Your task to perform on an android device: Go to privacy settings Image 0: 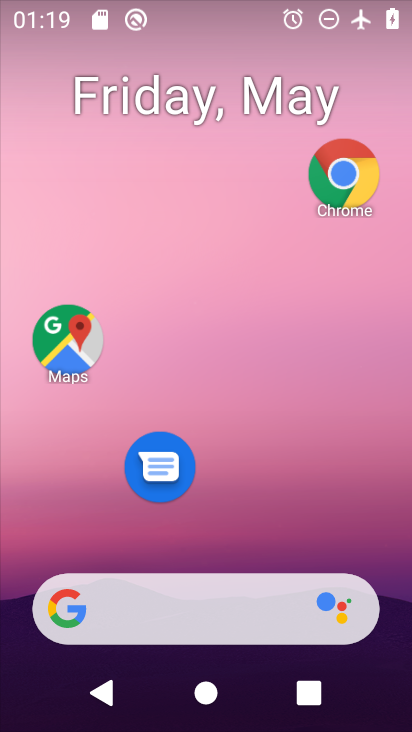
Step 0: drag from (241, 497) to (290, 198)
Your task to perform on an android device: Go to privacy settings Image 1: 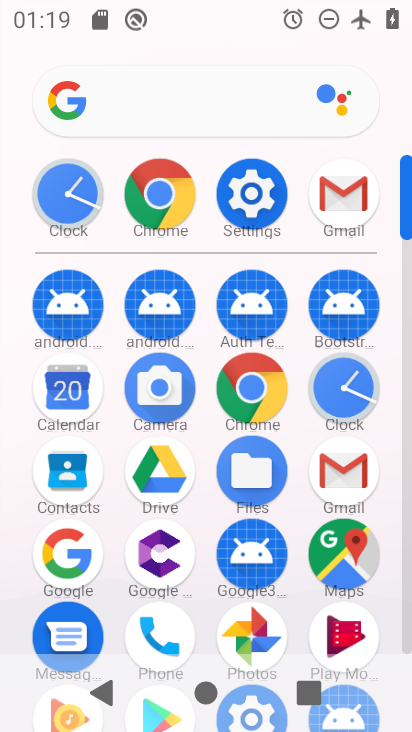
Step 1: click (254, 188)
Your task to perform on an android device: Go to privacy settings Image 2: 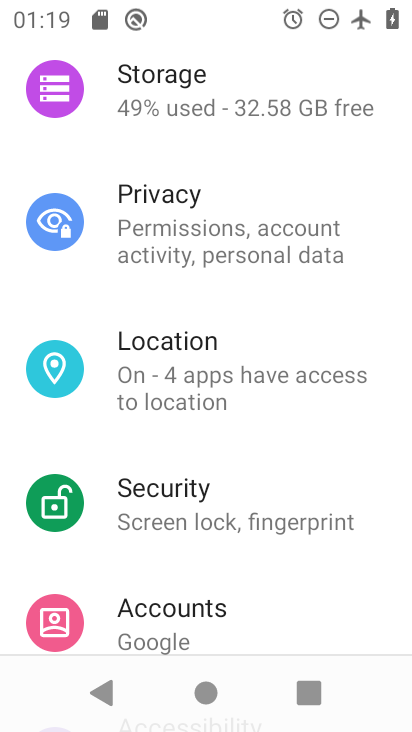
Step 2: click (214, 232)
Your task to perform on an android device: Go to privacy settings Image 3: 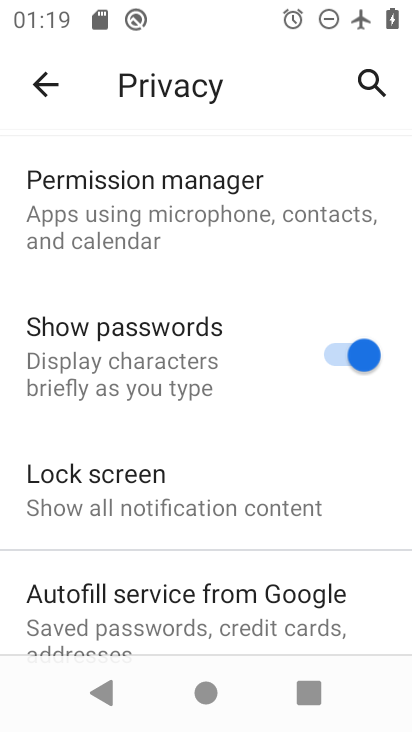
Step 3: task complete